Your task to perform on an android device: Play the last video I watched on Youtube Image 0: 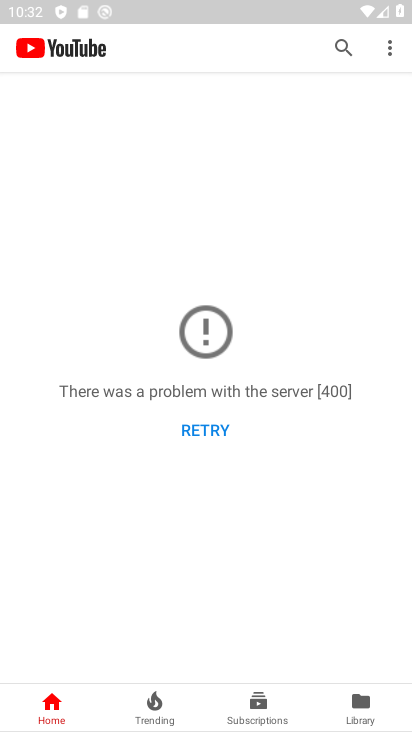
Step 0: press back button
Your task to perform on an android device: Play the last video I watched on Youtube Image 1: 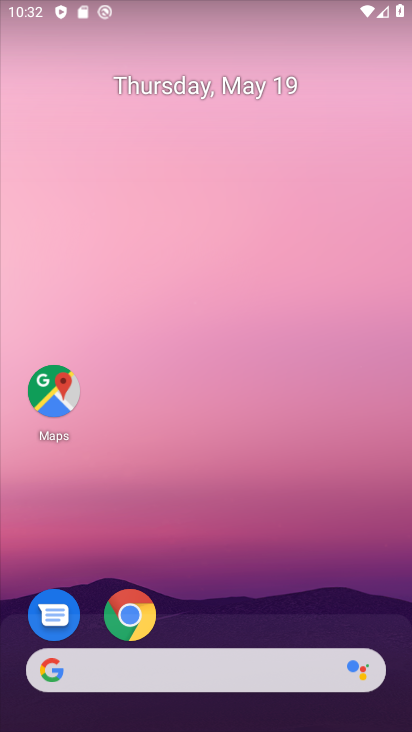
Step 1: drag from (288, 599) to (270, 146)
Your task to perform on an android device: Play the last video I watched on Youtube Image 2: 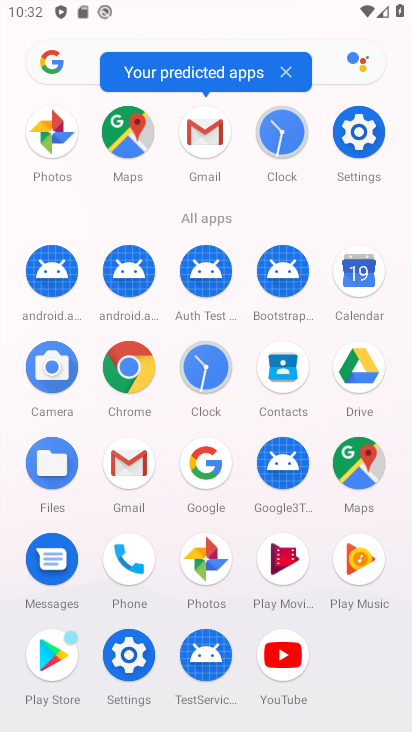
Step 2: click (280, 641)
Your task to perform on an android device: Play the last video I watched on Youtube Image 3: 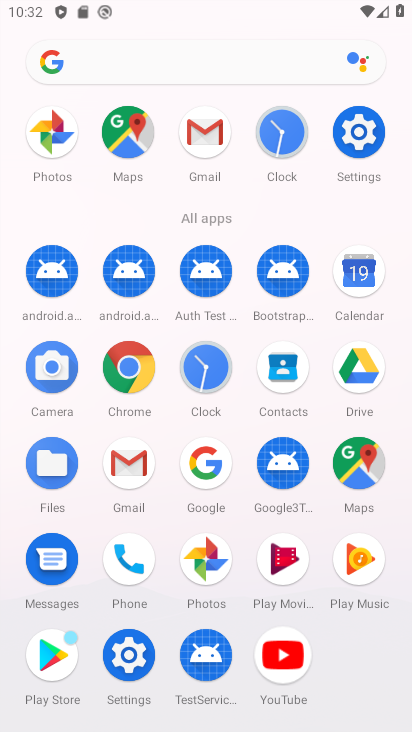
Step 3: click (280, 641)
Your task to perform on an android device: Play the last video I watched on Youtube Image 4: 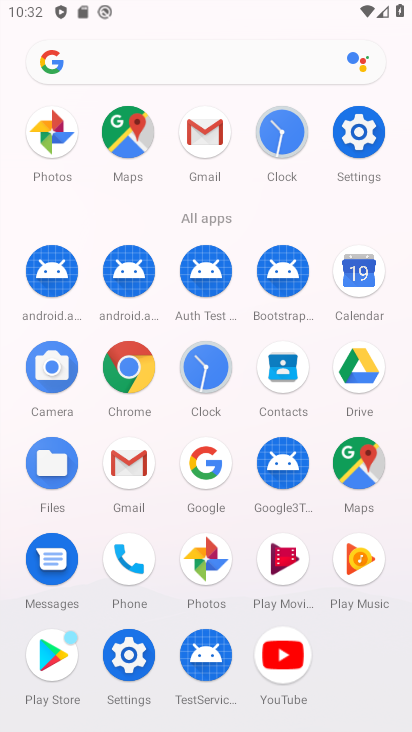
Step 4: click (278, 640)
Your task to perform on an android device: Play the last video I watched on Youtube Image 5: 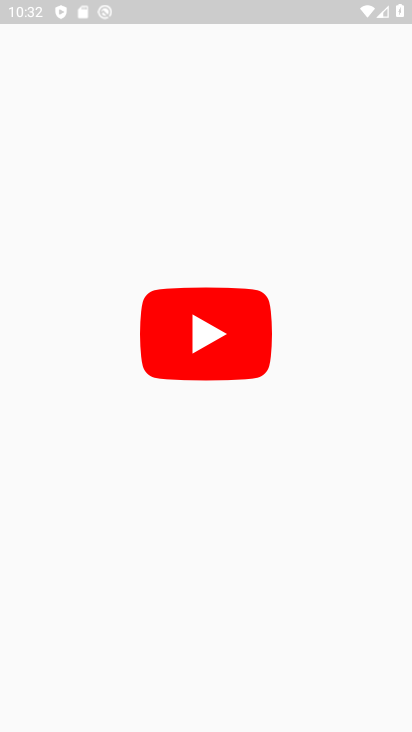
Step 5: click (271, 644)
Your task to perform on an android device: Play the last video I watched on Youtube Image 6: 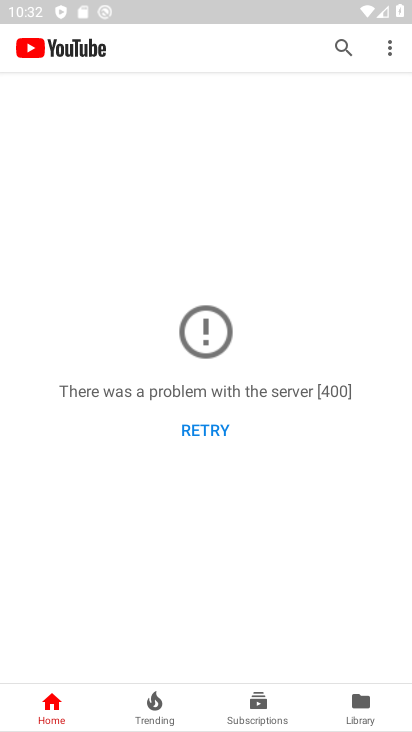
Step 6: task complete